Your task to perform on an android device: turn off wifi Image 0: 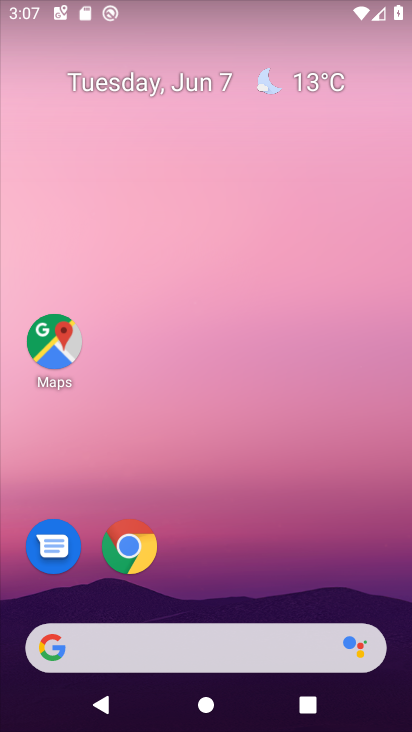
Step 0: drag from (358, 600) to (360, 81)
Your task to perform on an android device: turn off wifi Image 1: 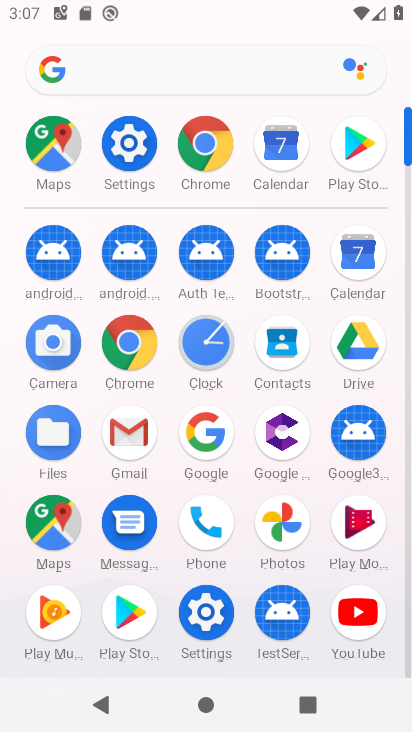
Step 1: click (134, 155)
Your task to perform on an android device: turn off wifi Image 2: 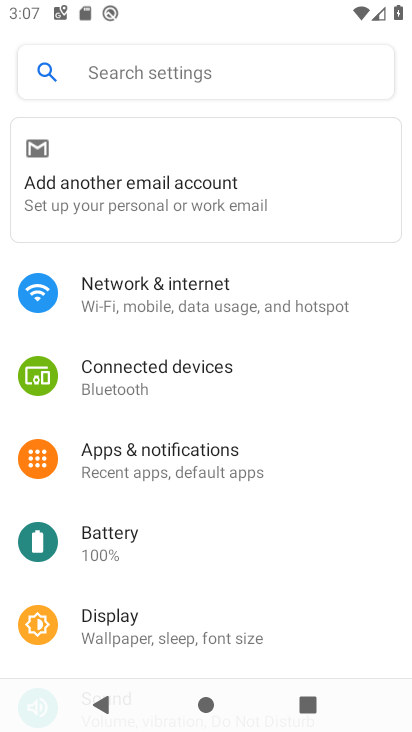
Step 2: click (244, 293)
Your task to perform on an android device: turn off wifi Image 3: 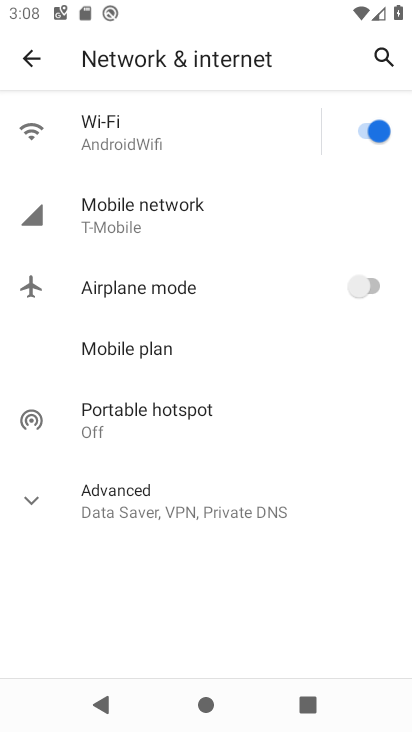
Step 3: click (364, 136)
Your task to perform on an android device: turn off wifi Image 4: 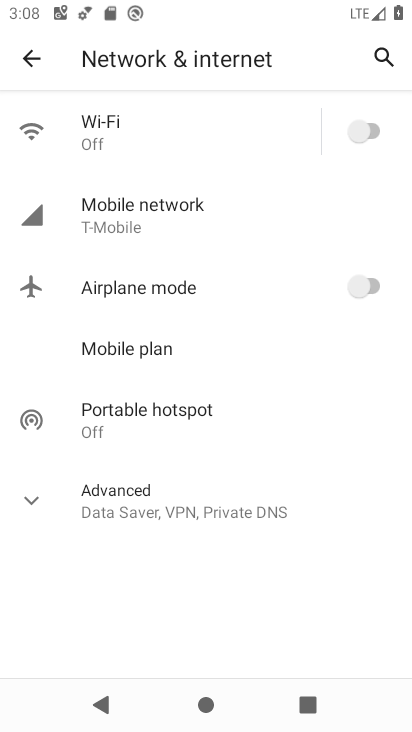
Step 4: task complete